Your task to perform on an android device: Open battery settings Image 0: 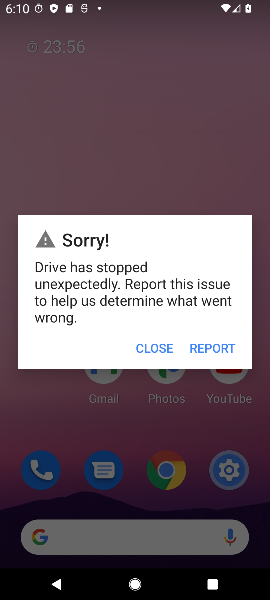
Step 0: press home button
Your task to perform on an android device: Open battery settings Image 1: 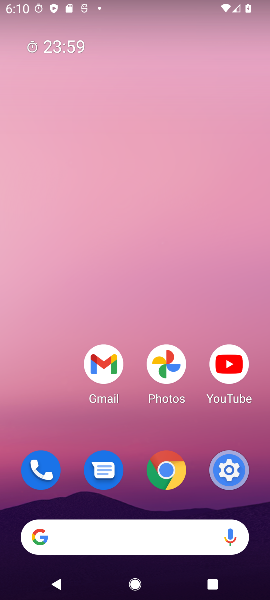
Step 1: drag from (186, 497) to (153, 43)
Your task to perform on an android device: Open battery settings Image 2: 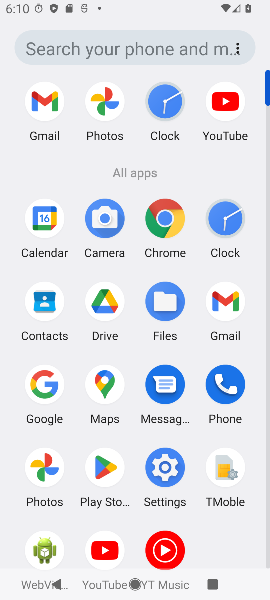
Step 2: click (157, 464)
Your task to perform on an android device: Open battery settings Image 3: 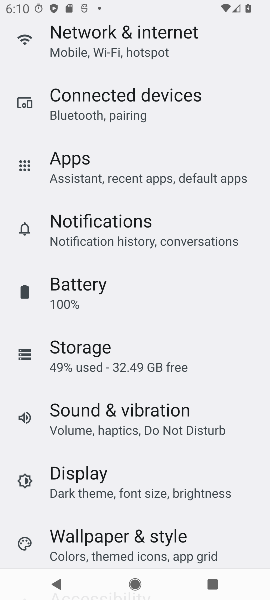
Step 3: click (83, 294)
Your task to perform on an android device: Open battery settings Image 4: 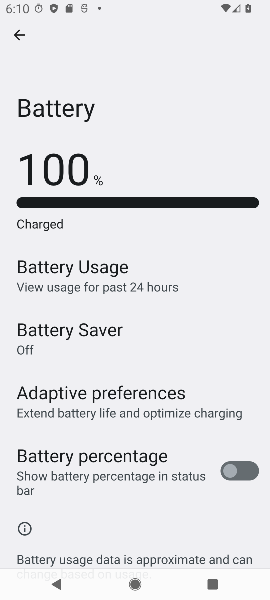
Step 4: task complete